Your task to perform on an android device: Open Amazon Image 0: 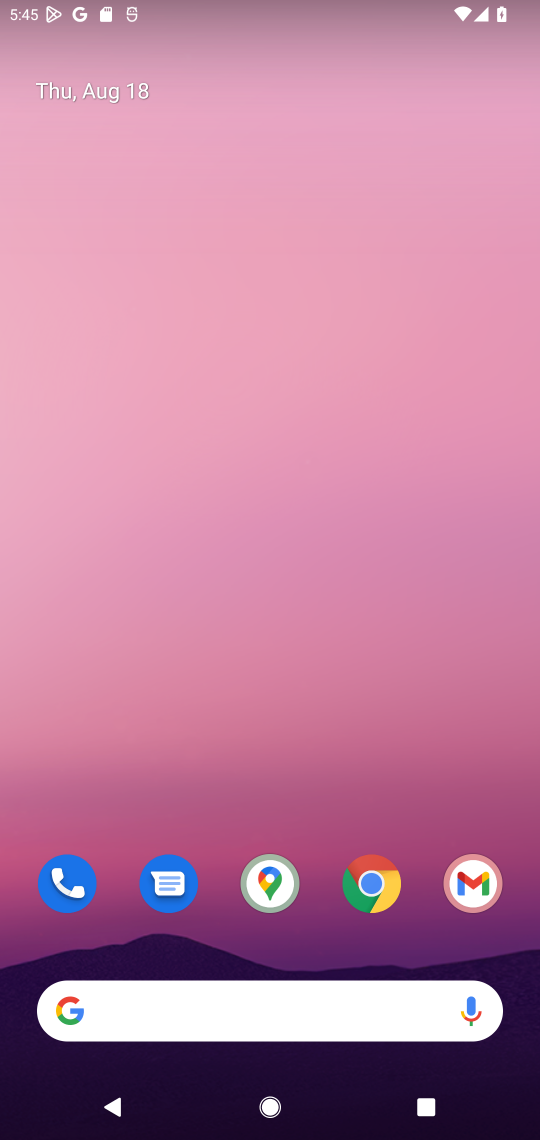
Step 0: drag from (354, 779) to (463, 45)
Your task to perform on an android device: Open Amazon Image 1: 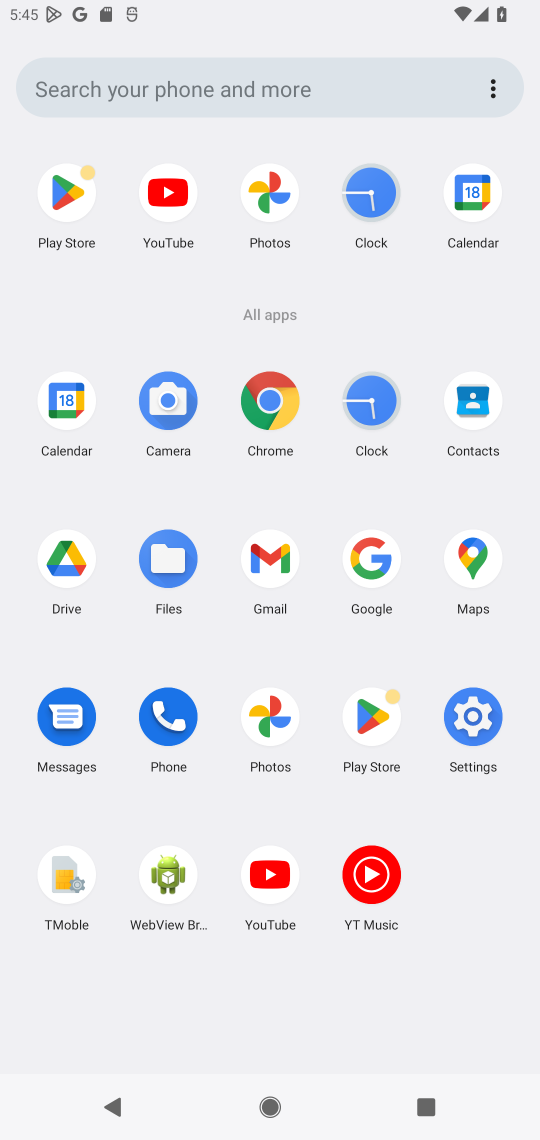
Step 1: click (265, 402)
Your task to perform on an android device: Open Amazon Image 2: 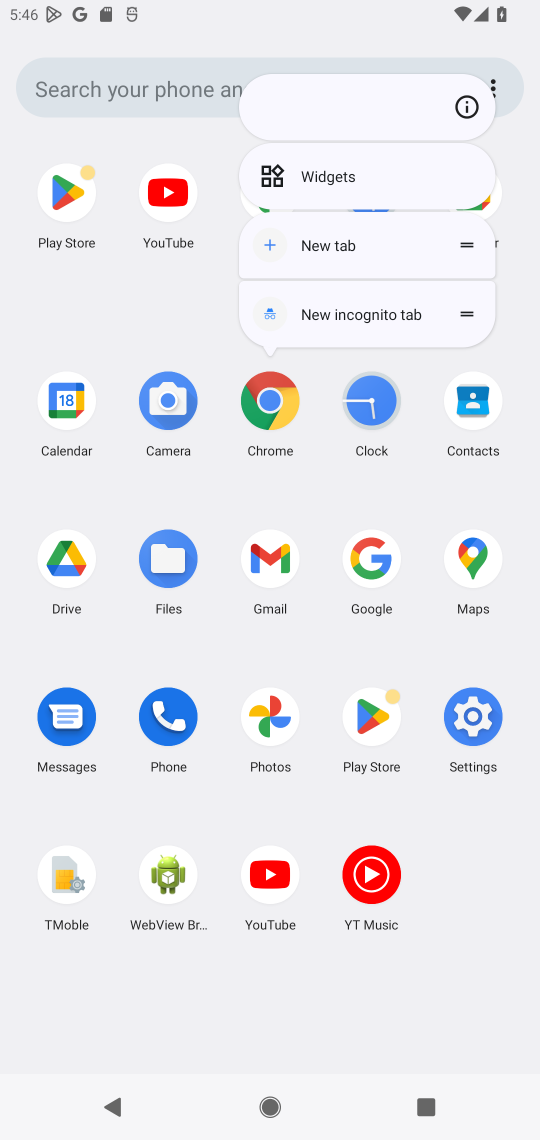
Step 2: click (278, 399)
Your task to perform on an android device: Open Amazon Image 3: 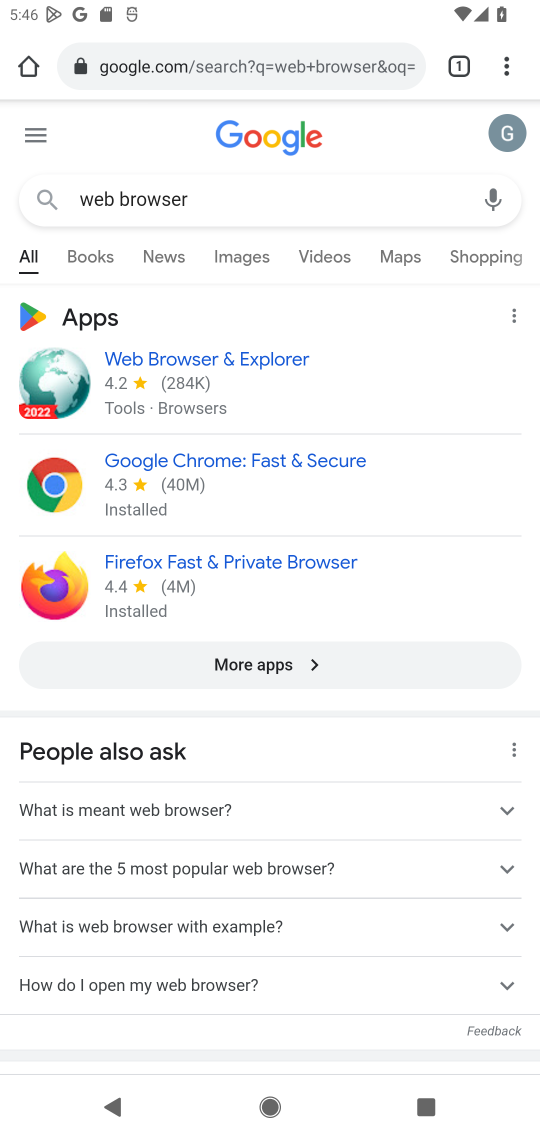
Step 3: click (346, 61)
Your task to perform on an android device: Open Amazon Image 4: 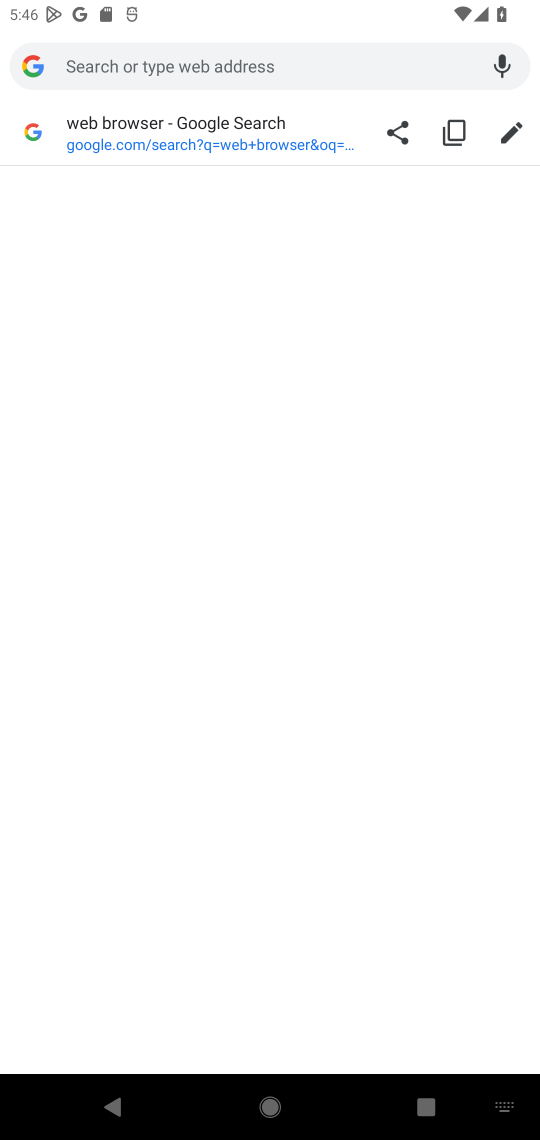
Step 4: type " Amazon"
Your task to perform on an android device: Open Amazon Image 5: 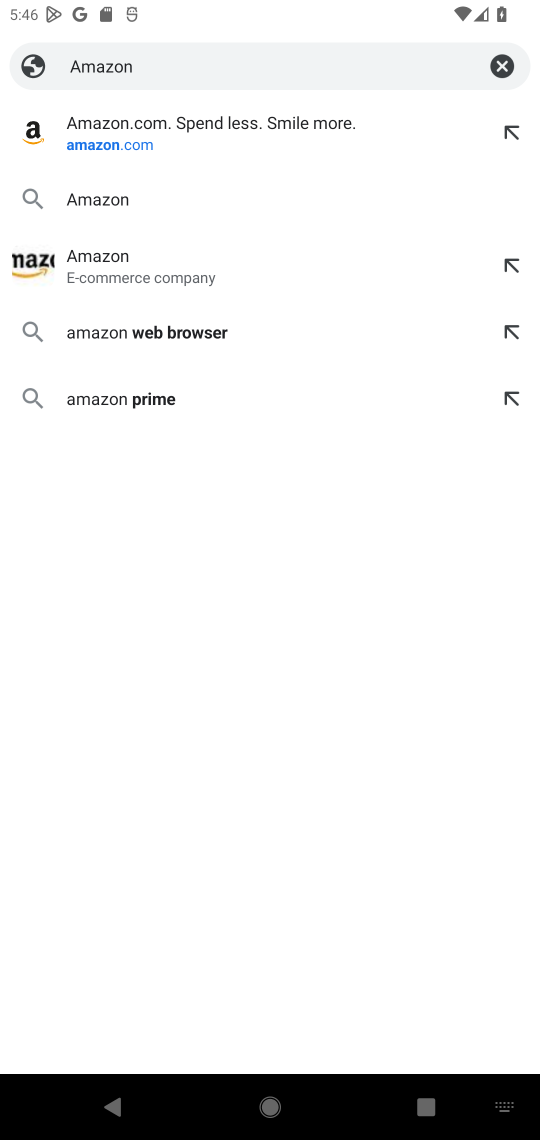
Step 5: click (100, 136)
Your task to perform on an android device: Open Amazon Image 6: 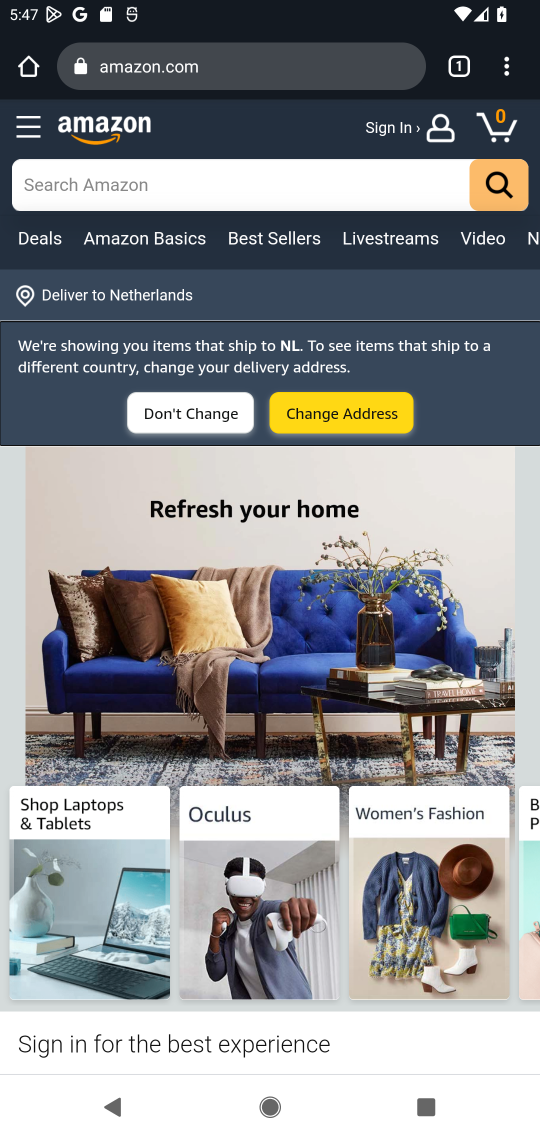
Step 6: task complete